Your task to perform on an android device: Go to Maps Image 0: 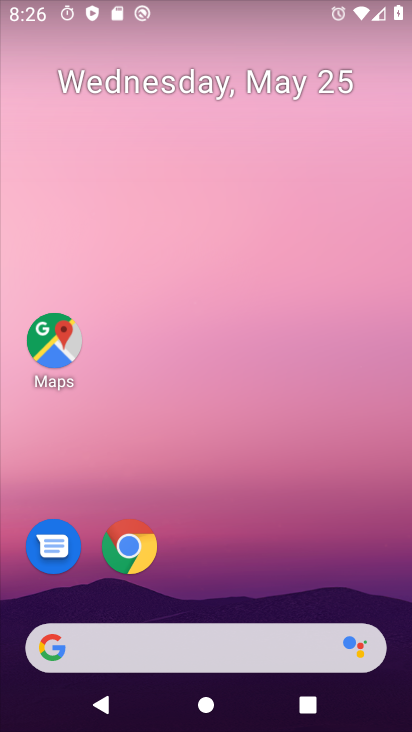
Step 0: click (44, 369)
Your task to perform on an android device: Go to Maps Image 1: 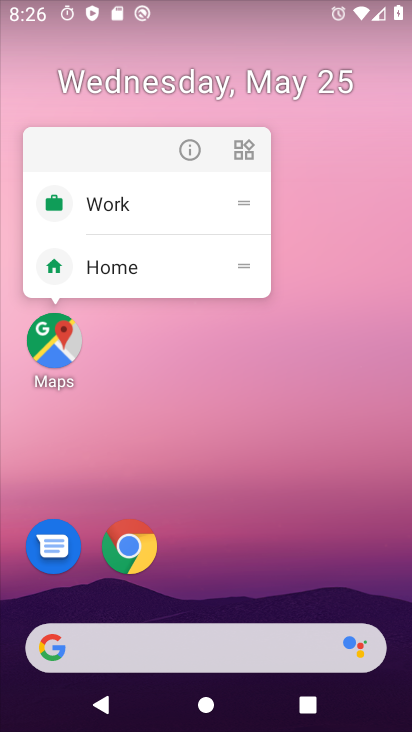
Step 1: click (46, 360)
Your task to perform on an android device: Go to Maps Image 2: 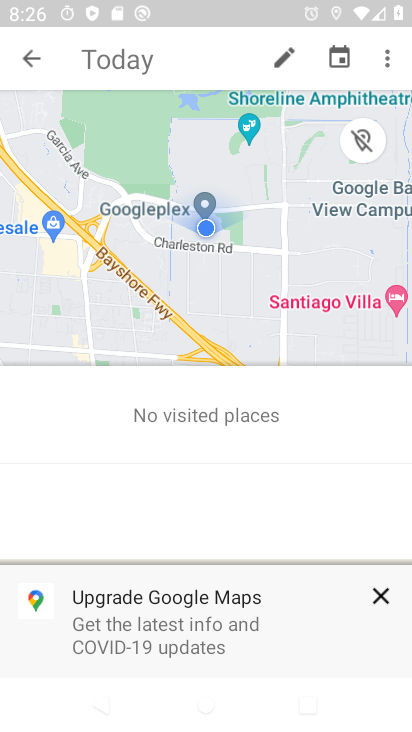
Step 2: task complete